Your task to perform on an android device: snooze an email in the gmail app Image 0: 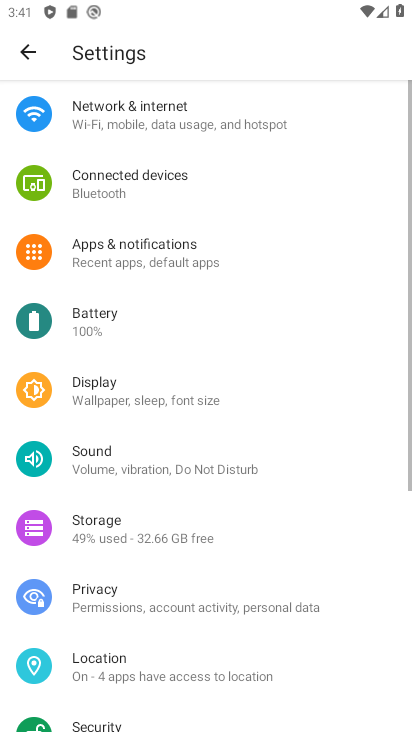
Step 0: press back button
Your task to perform on an android device: snooze an email in the gmail app Image 1: 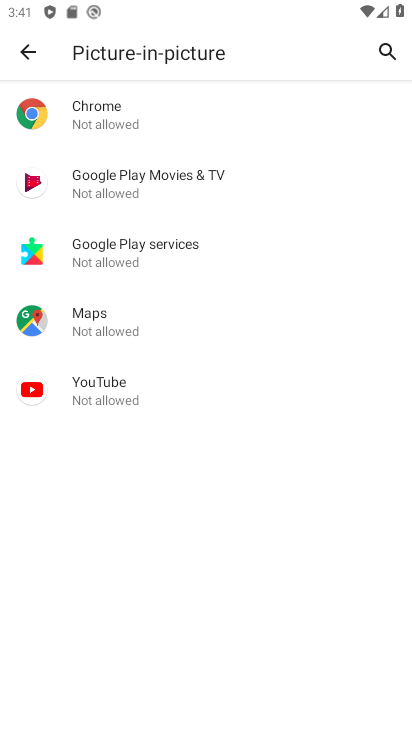
Step 1: press back button
Your task to perform on an android device: snooze an email in the gmail app Image 2: 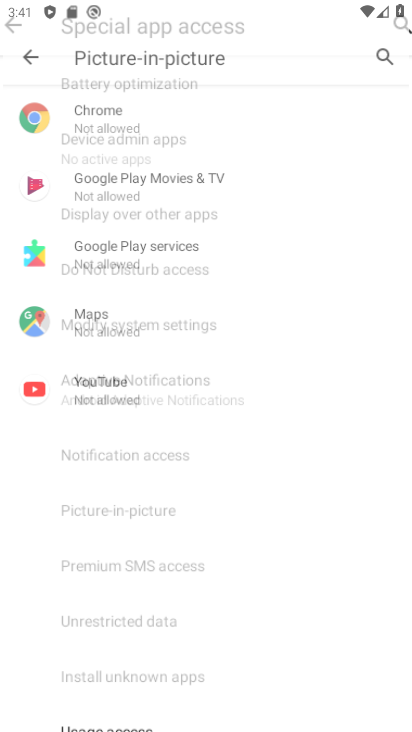
Step 2: press home button
Your task to perform on an android device: snooze an email in the gmail app Image 3: 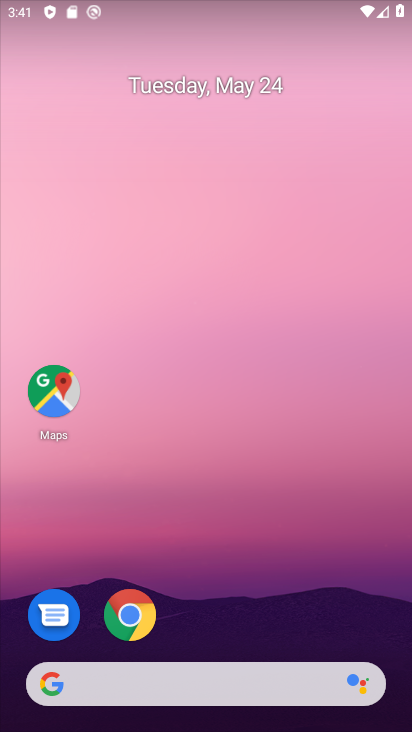
Step 3: drag from (236, 599) to (230, 1)
Your task to perform on an android device: snooze an email in the gmail app Image 4: 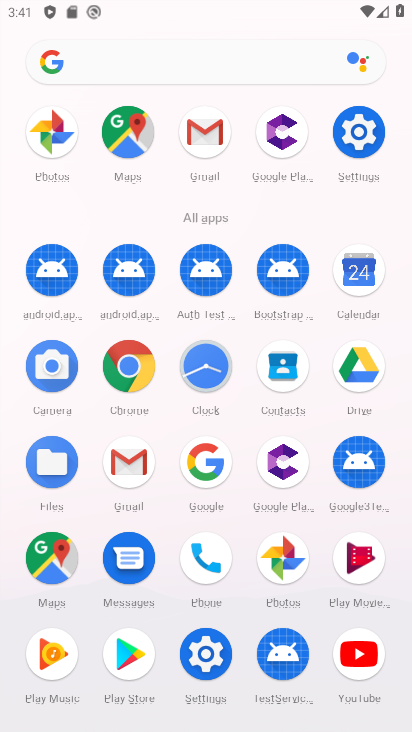
Step 4: click (202, 125)
Your task to perform on an android device: snooze an email in the gmail app Image 5: 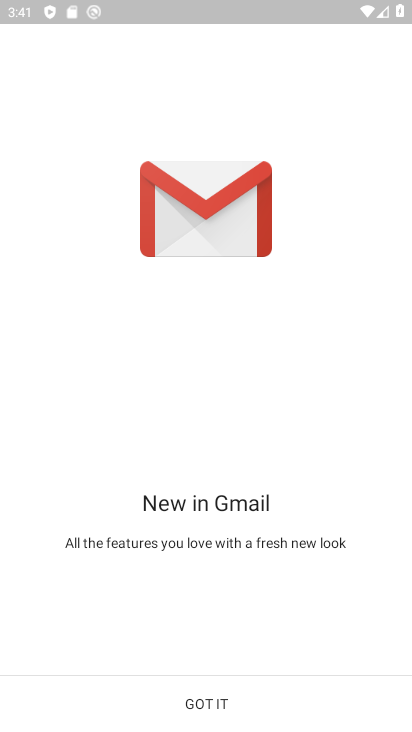
Step 5: click (215, 714)
Your task to perform on an android device: snooze an email in the gmail app Image 6: 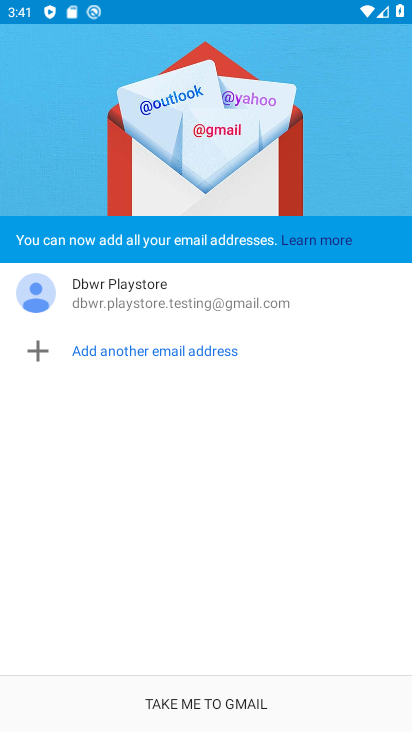
Step 6: click (213, 698)
Your task to perform on an android device: snooze an email in the gmail app Image 7: 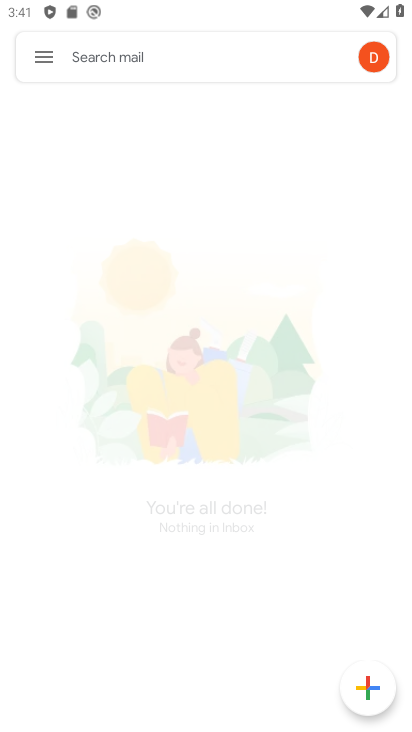
Step 7: click (43, 50)
Your task to perform on an android device: snooze an email in the gmail app Image 8: 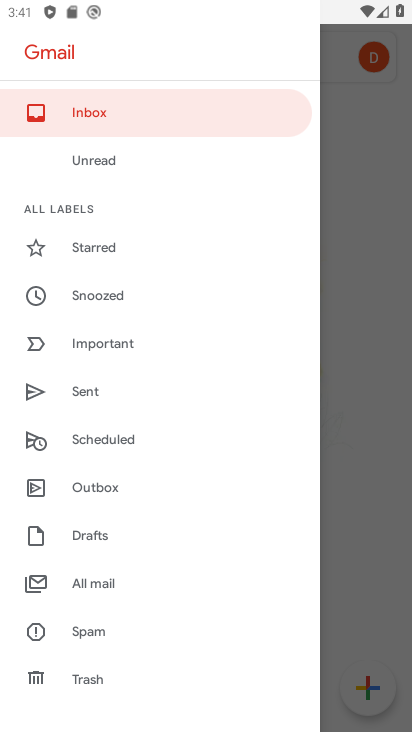
Step 8: click (110, 291)
Your task to perform on an android device: snooze an email in the gmail app Image 9: 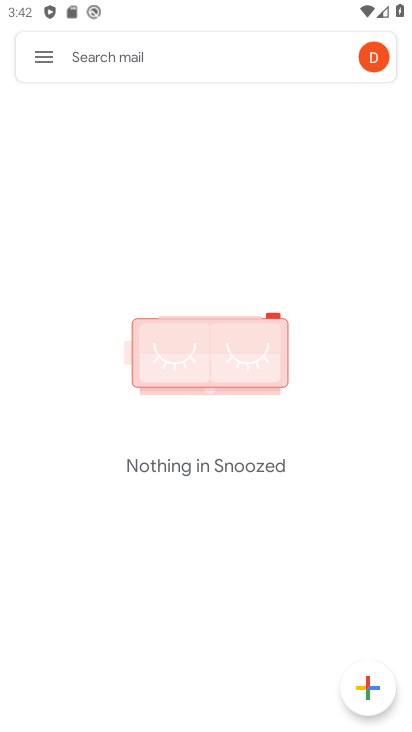
Step 9: task complete